Your task to perform on an android device: Open the web browser Image 0: 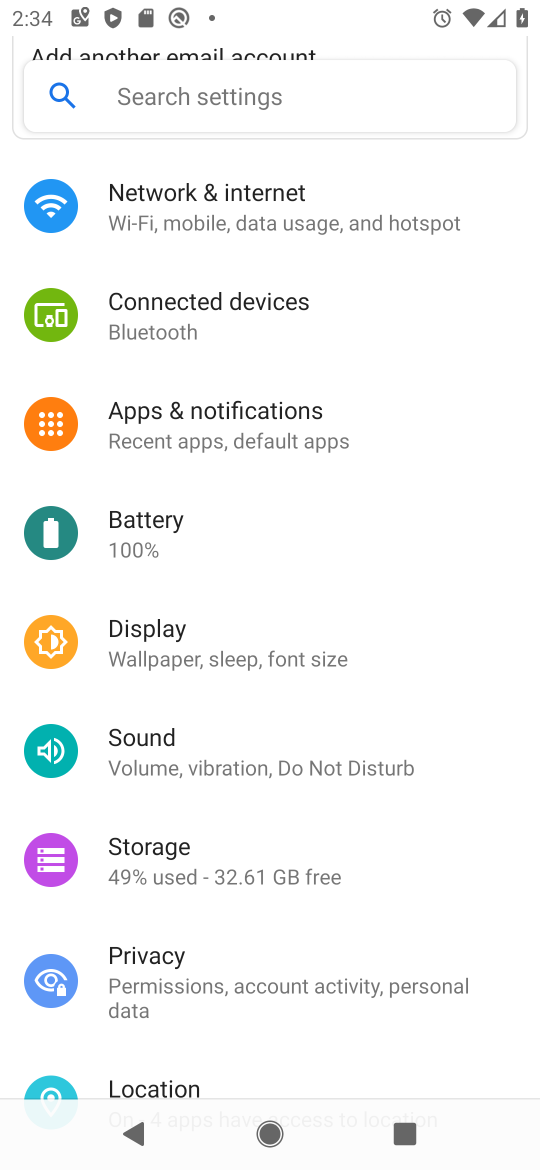
Step 0: press home button
Your task to perform on an android device: Open the web browser Image 1: 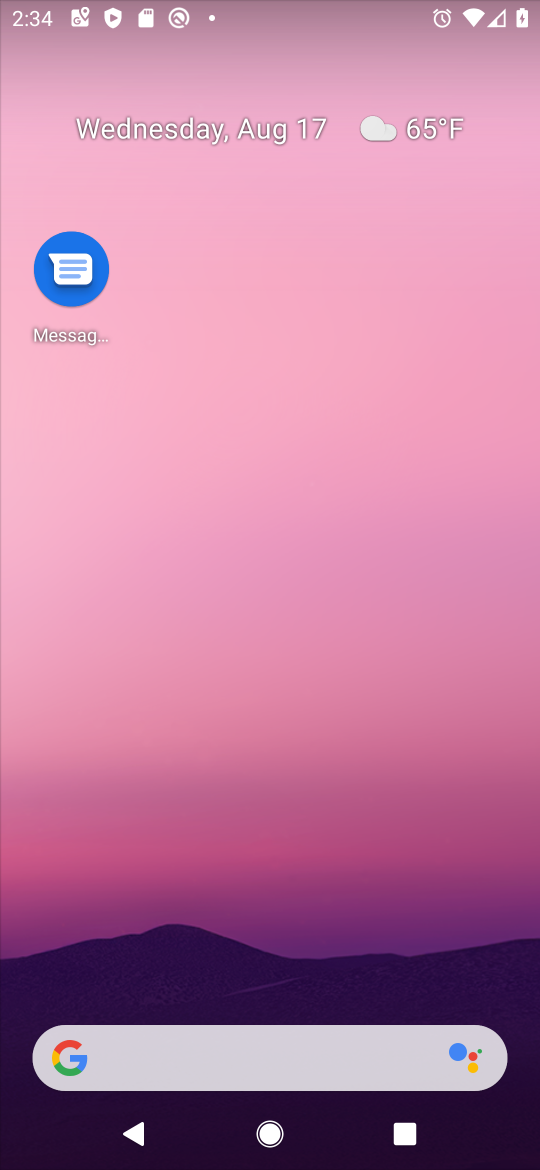
Step 1: click (227, 1052)
Your task to perform on an android device: Open the web browser Image 2: 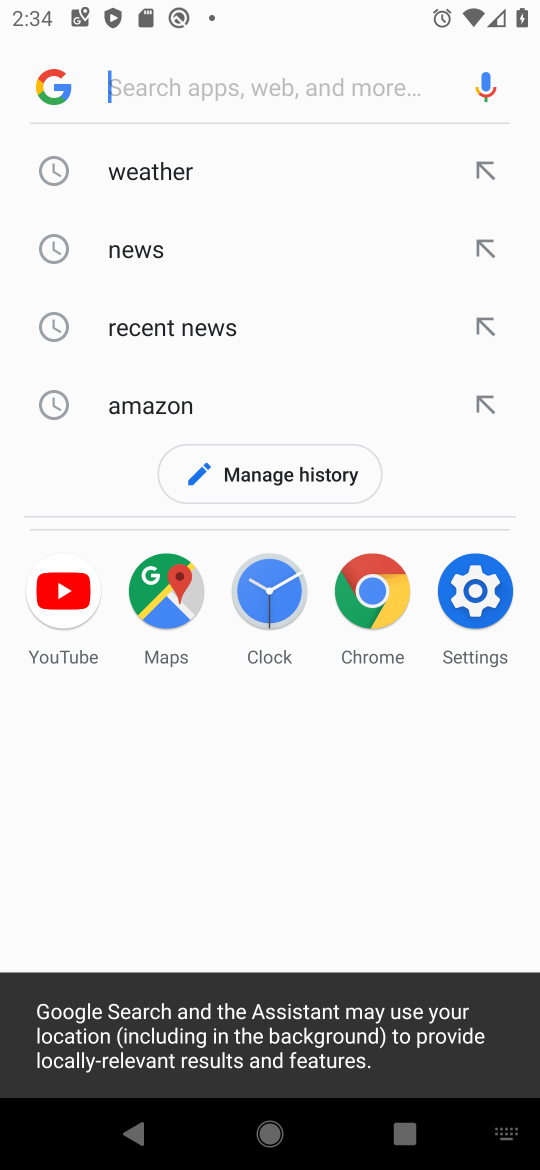
Step 2: task complete